Your task to perform on an android device: turn off notifications in google photos Image 0: 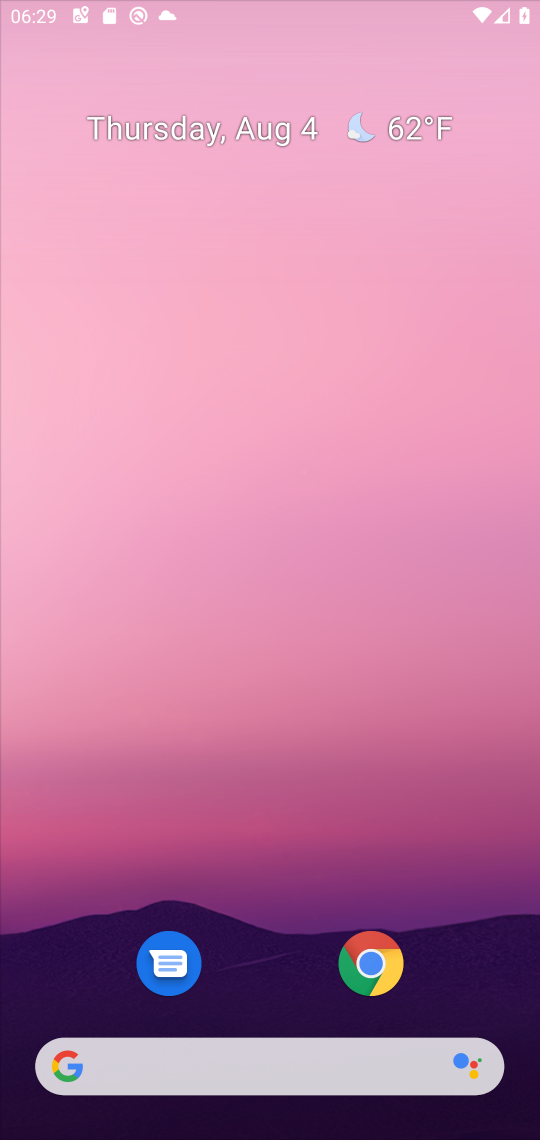
Step 0: press home button
Your task to perform on an android device: turn off notifications in google photos Image 1: 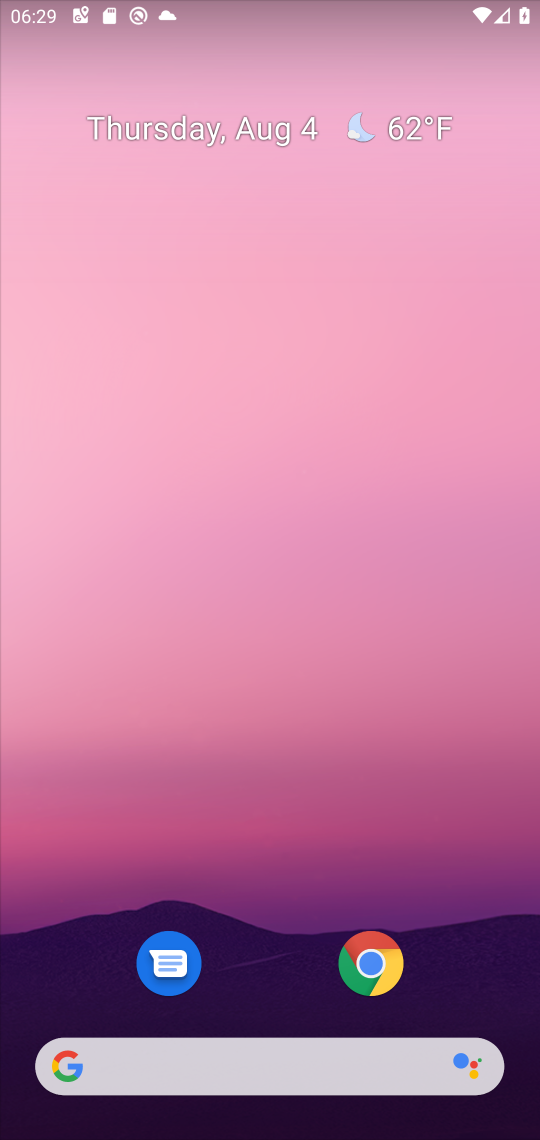
Step 1: drag from (252, 539) to (218, 20)
Your task to perform on an android device: turn off notifications in google photos Image 2: 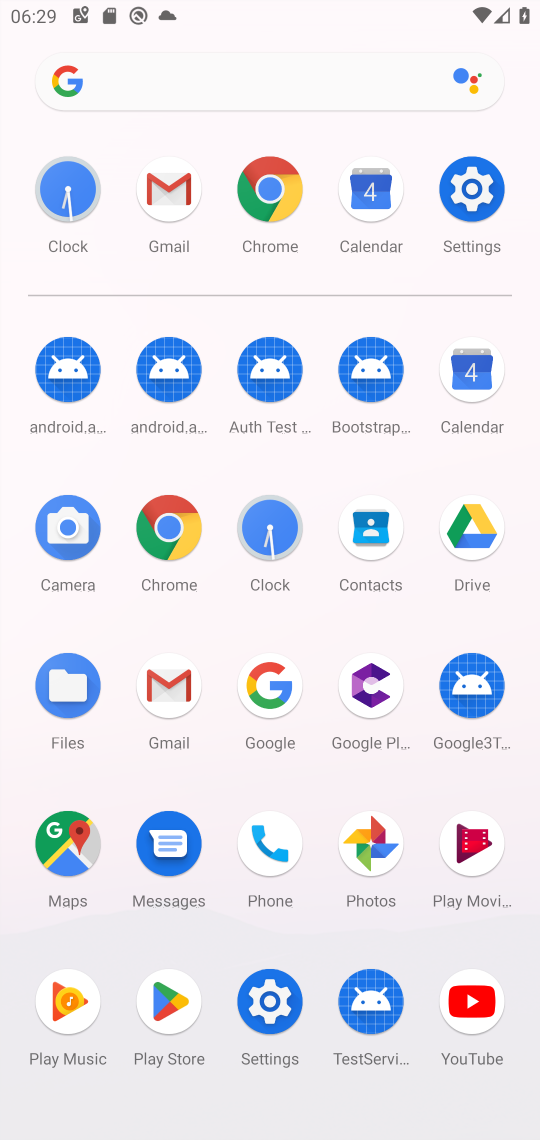
Step 2: click (367, 822)
Your task to perform on an android device: turn off notifications in google photos Image 3: 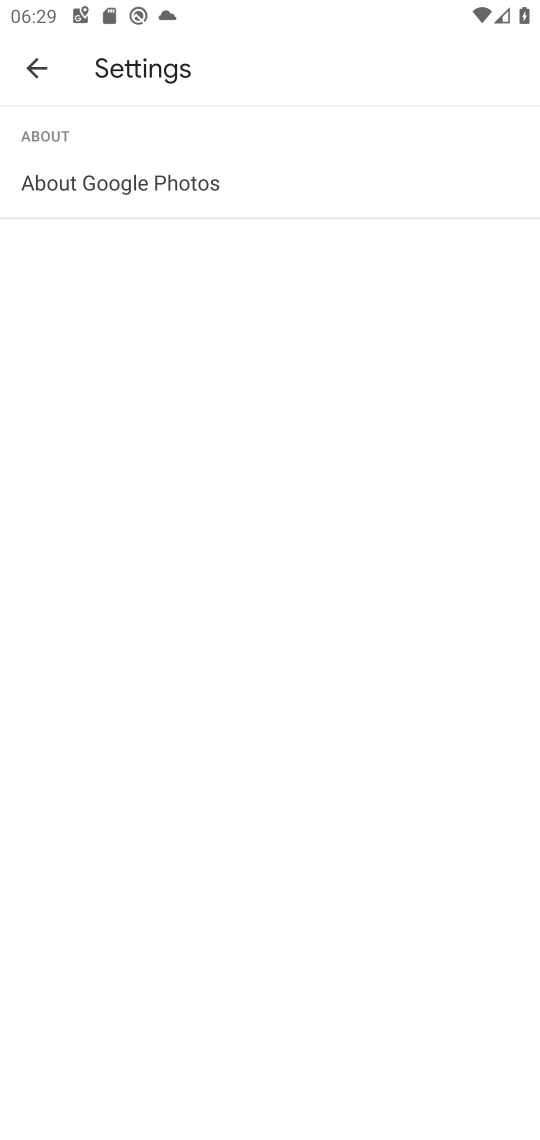
Step 3: click (32, 76)
Your task to perform on an android device: turn off notifications in google photos Image 4: 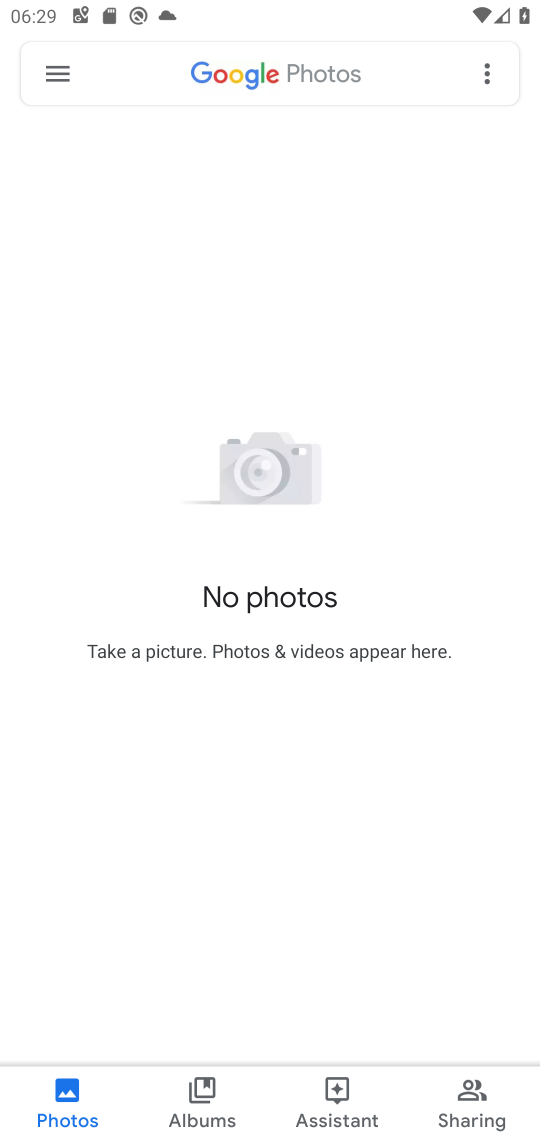
Step 4: click (47, 71)
Your task to perform on an android device: turn off notifications in google photos Image 5: 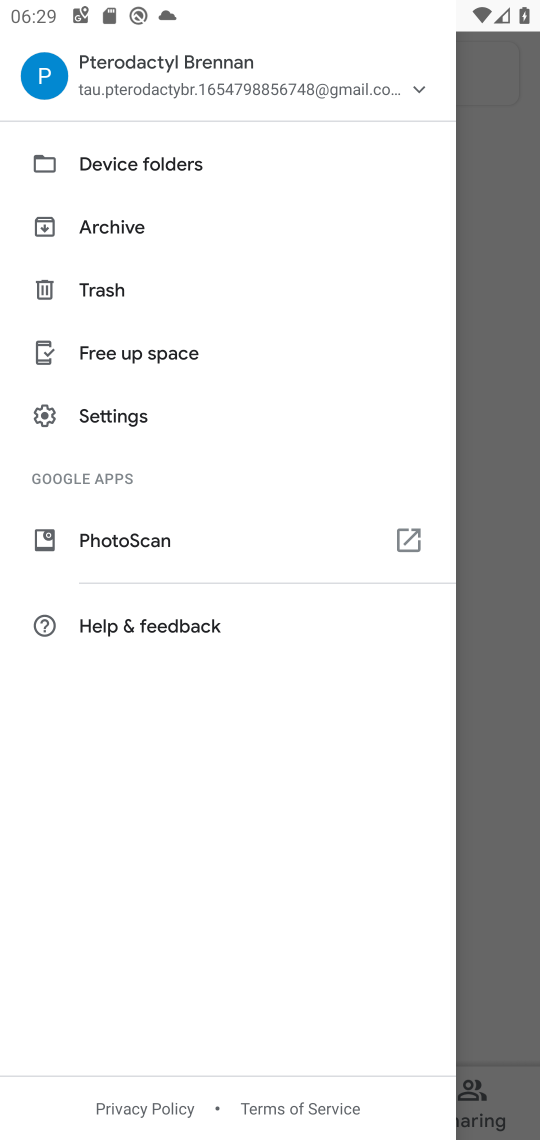
Step 5: click (113, 409)
Your task to perform on an android device: turn off notifications in google photos Image 6: 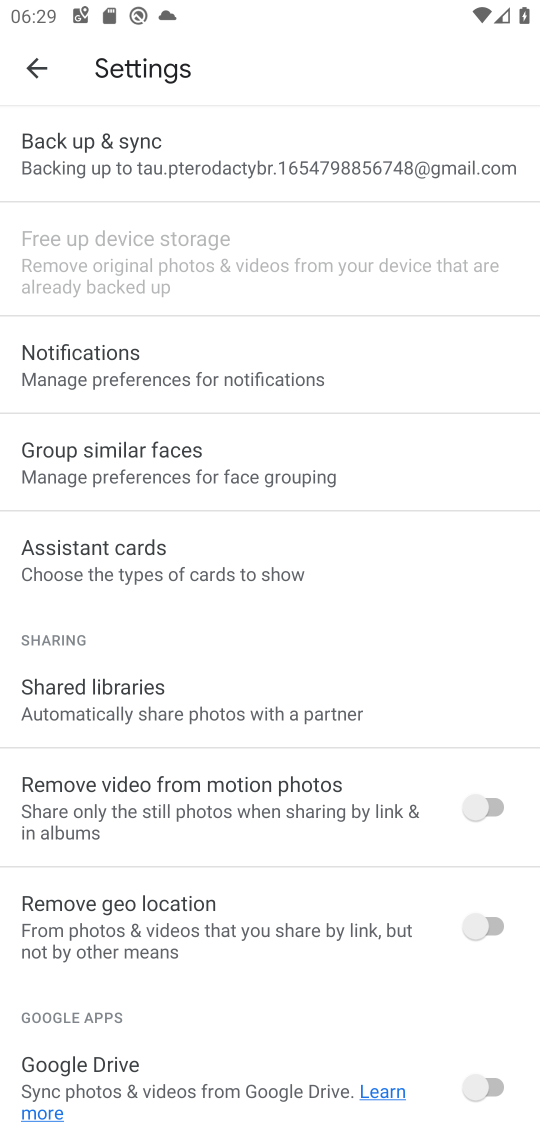
Step 6: click (104, 359)
Your task to perform on an android device: turn off notifications in google photos Image 7: 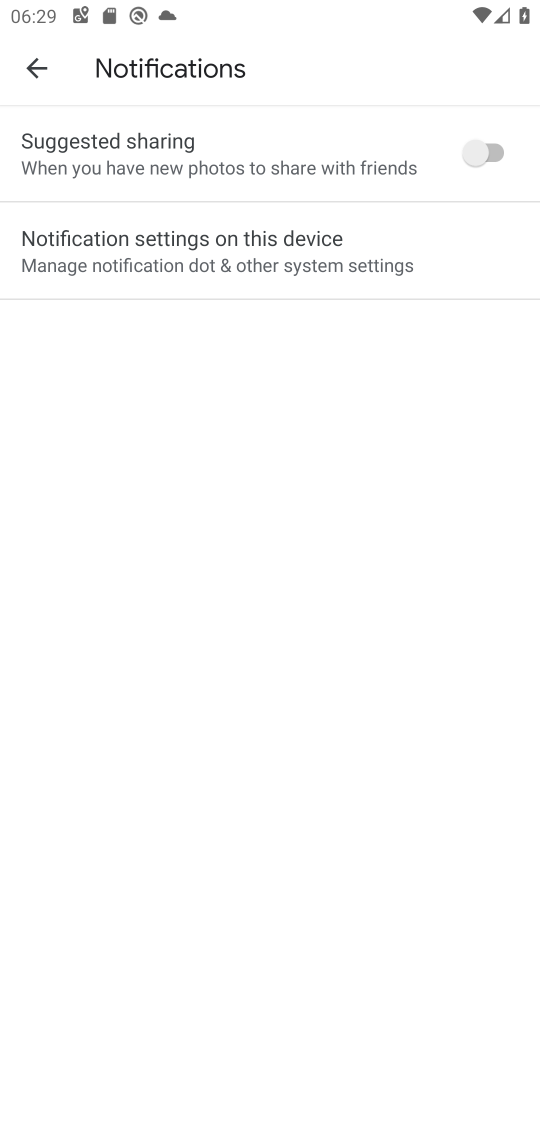
Step 7: task complete